Your task to perform on an android device: What is the recent news? Image 0: 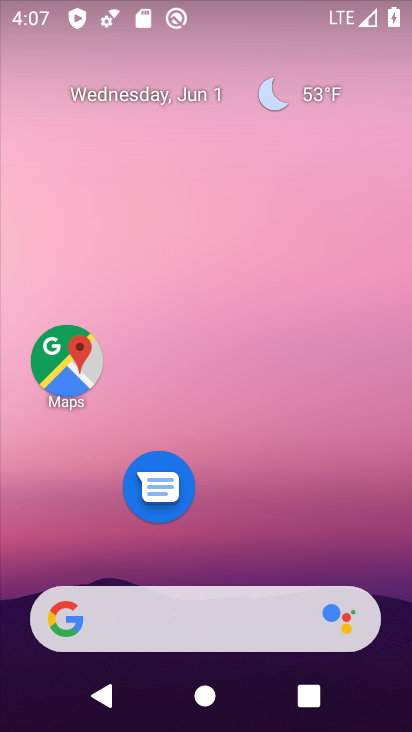
Step 0: drag from (262, 533) to (142, 0)
Your task to perform on an android device: What is the recent news? Image 1: 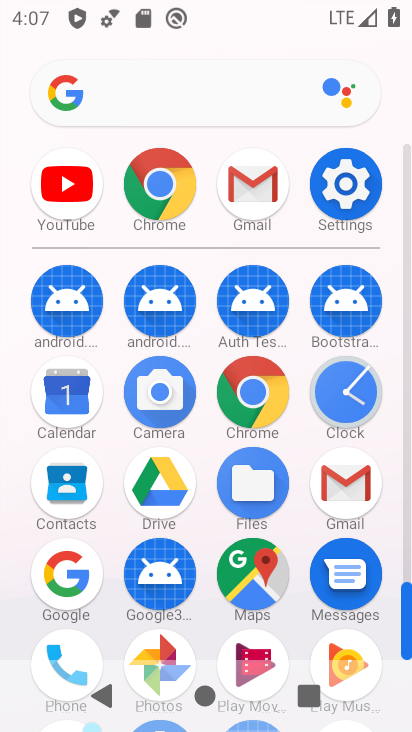
Step 1: click (175, 79)
Your task to perform on an android device: What is the recent news? Image 2: 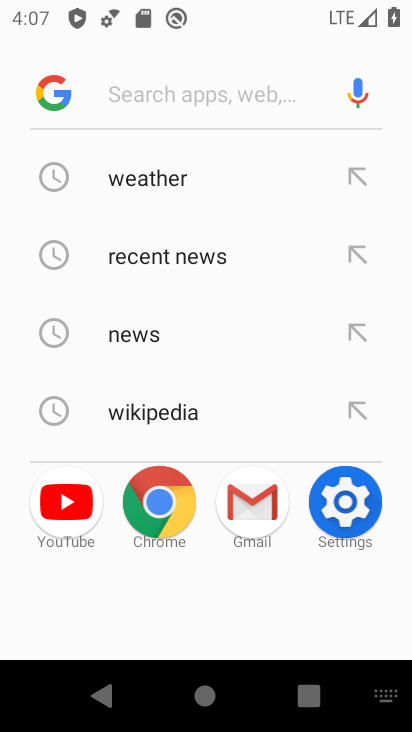
Step 2: type "recent news"
Your task to perform on an android device: What is the recent news? Image 3: 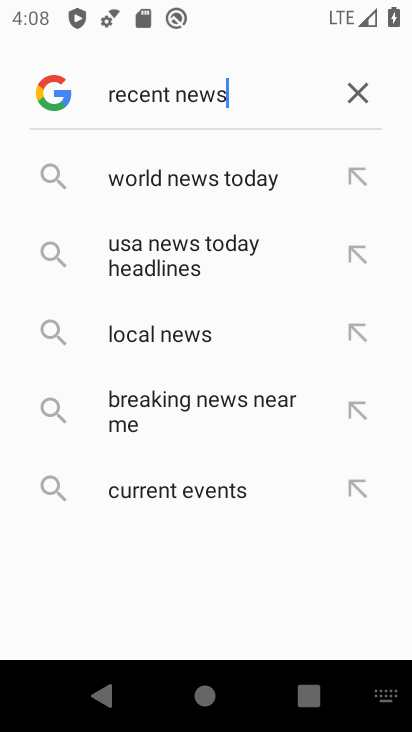
Step 3: click (223, 190)
Your task to perform on an android device: What is the recent news? Image 4: 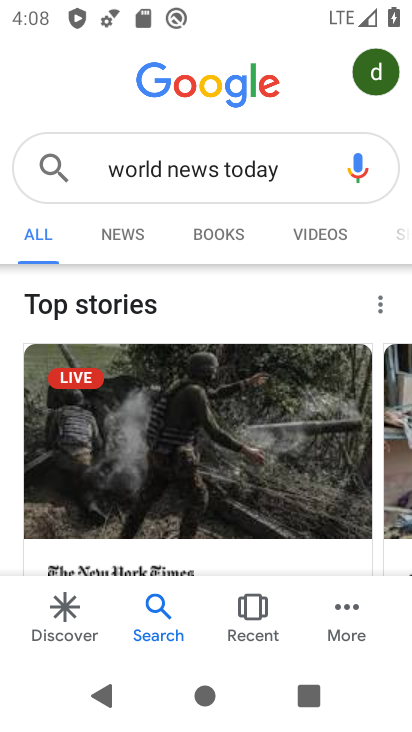
Step 4: task complete